Your task to perform on an android device: Go to location settings Image 0: 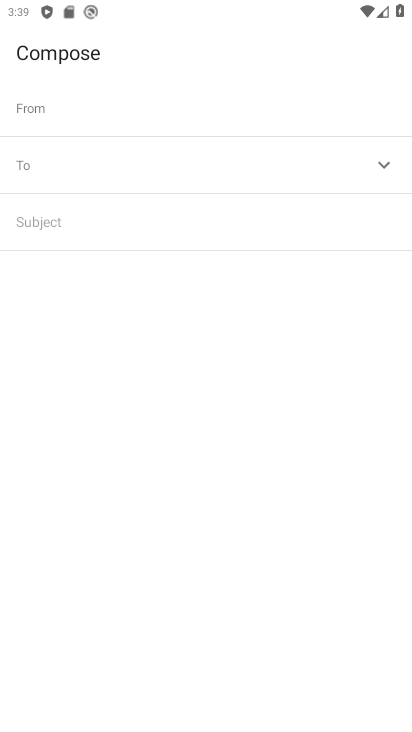
Step 0: drag from (233, 600) to (274, 129)
Your task to perform on an android device: Go to location settings Image 1: 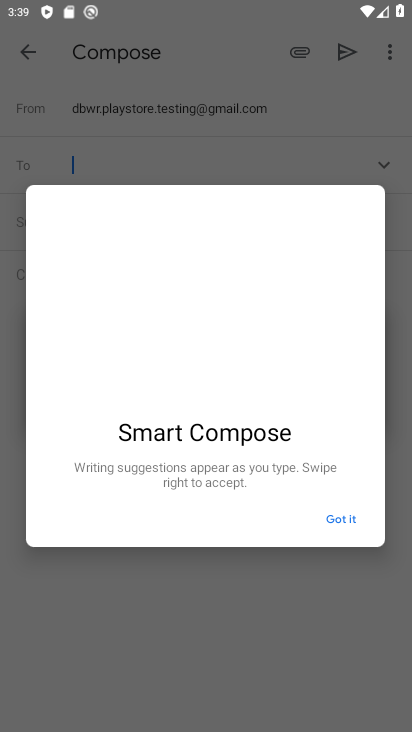
Step 1: press home button
Your task to perform on an android device: Go to location settings Image 2: 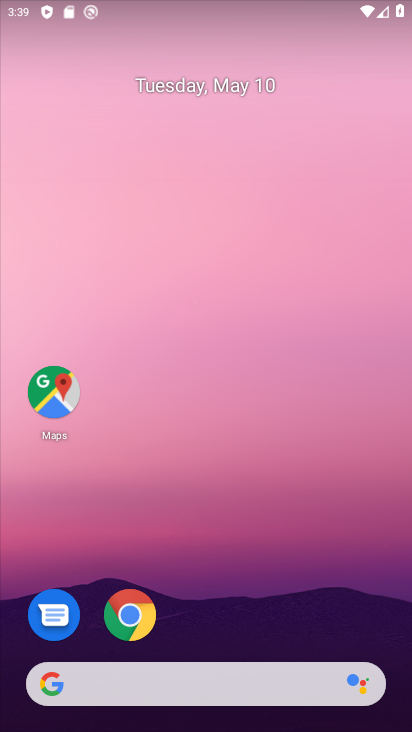
Step 2: drag from (234, 574) to (275, 170)
Your task to perform on an android device: Go to location settings Image 3: 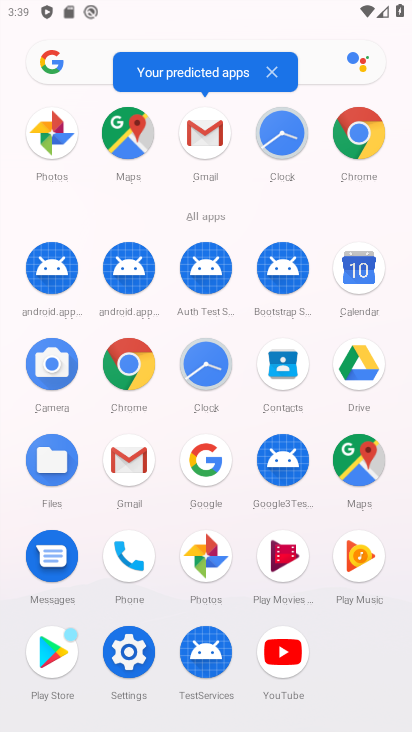
Step 3: click (148, 649)
Your task to perform on an android device: Go to location settings Image 4: 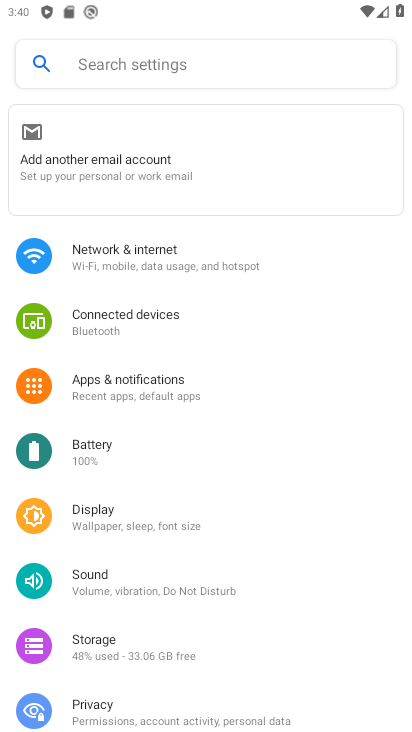
Step 4: drag from (125, 671) to (171, 382)
Your task to perform on an android device: Go to location settings Image 5: 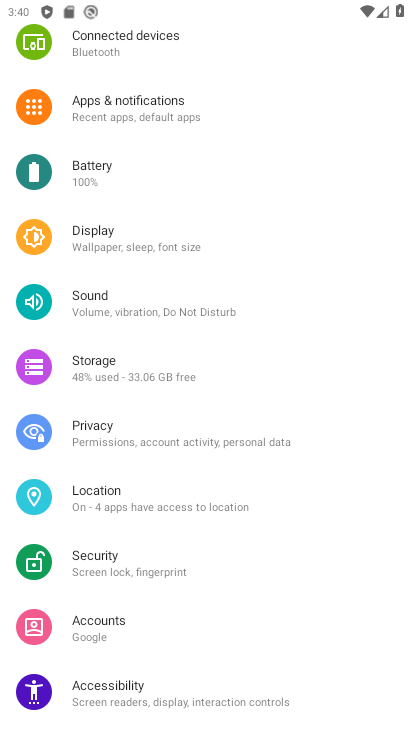
Step 5: click (149, 504)
Your task to perform on an android device: Go to location settings Image 6: 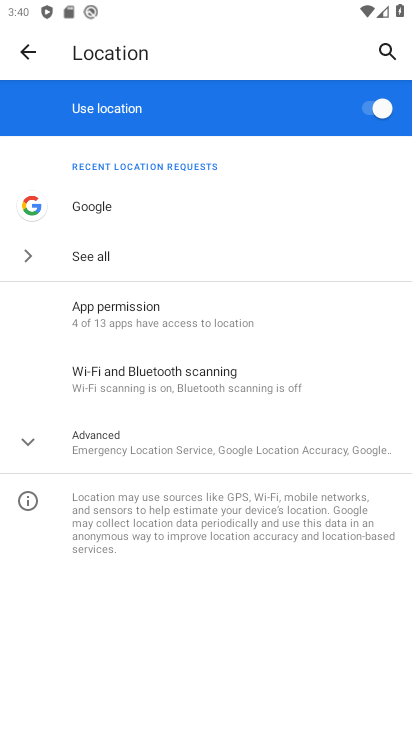
Step 6: task complete